Your task to perform on an android device: turn notification dots off Image 0: 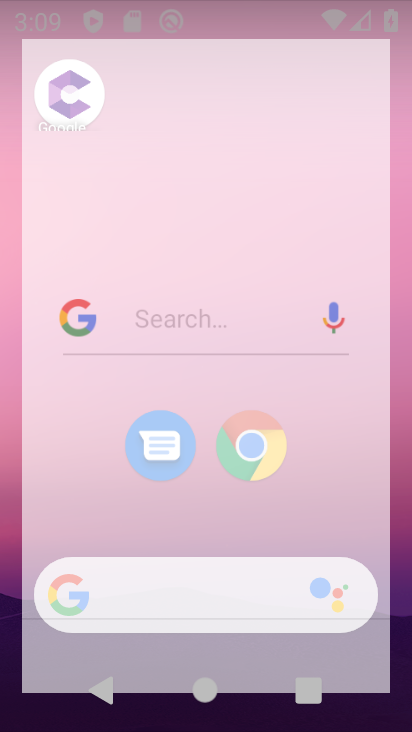
Step 0: drag from (329, 517) to (329, 62)
Your task to perform on an android device: turn notification dots off Image 1: 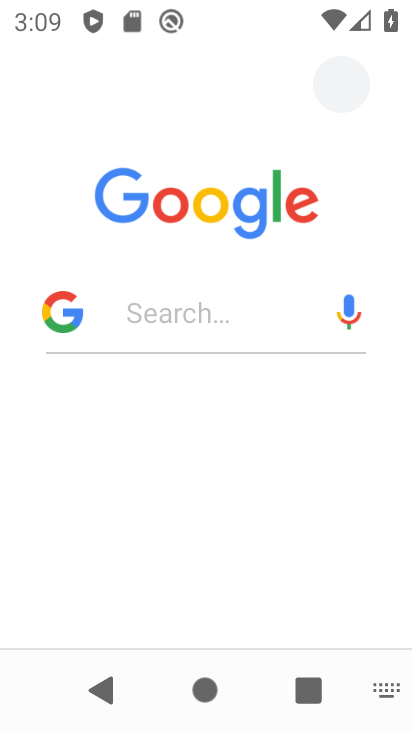
Step 1: press home button
Your task to perform on an android device: turn notification dots off Image 2: 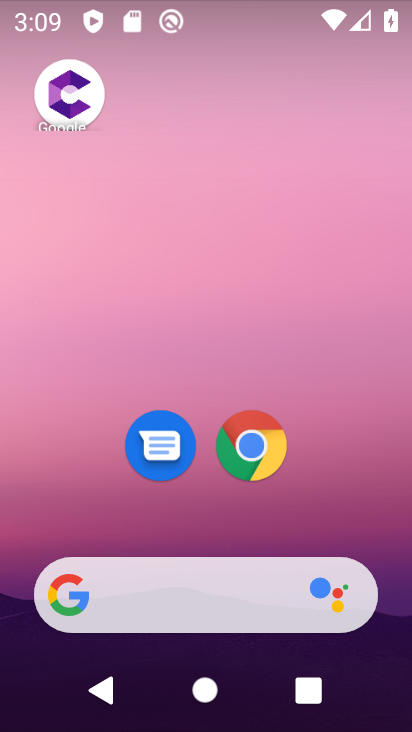
Step 2: drag from (336, 473) to (342, 47)
Your task to perform on an android device: turn notification dots off Image 3: 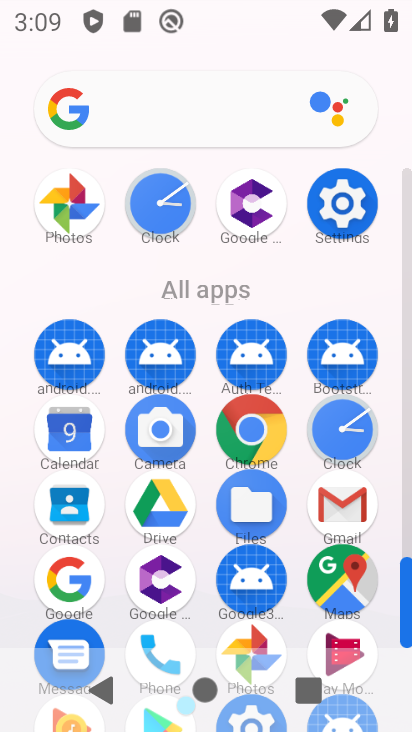
Step 3: click (352, 221)
Your task to perform on an android device: turn notification dots off Image 4: 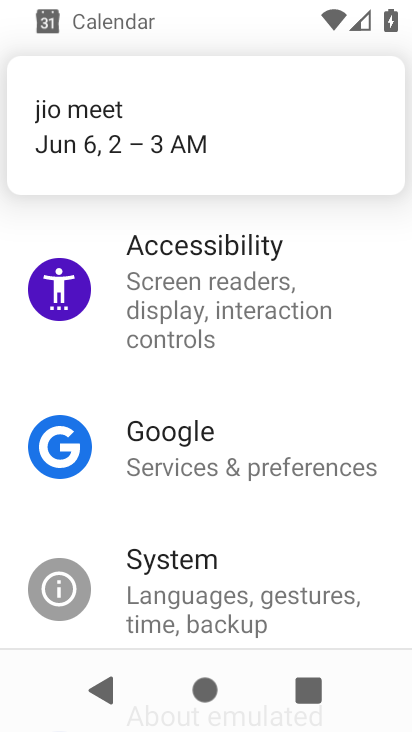
Step 4: drag from (279, 238) to (308, 642)
Your task to perform on an android device: turn notification dots off Image 5: 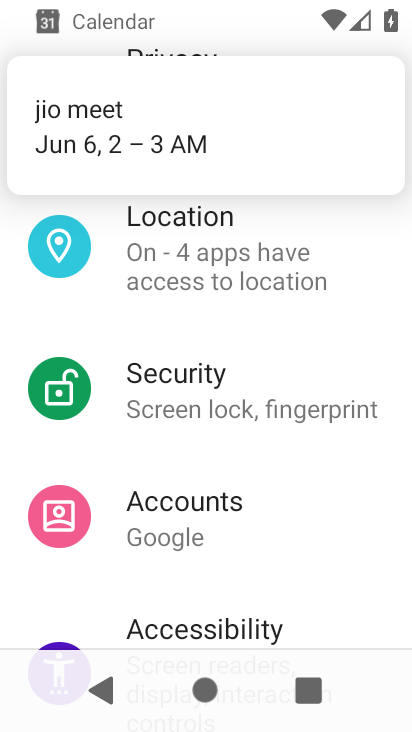
Step 5: drag from (170, 327) to (261, 567)
Your task to perform on an android device: turn notification dots off Image 6: 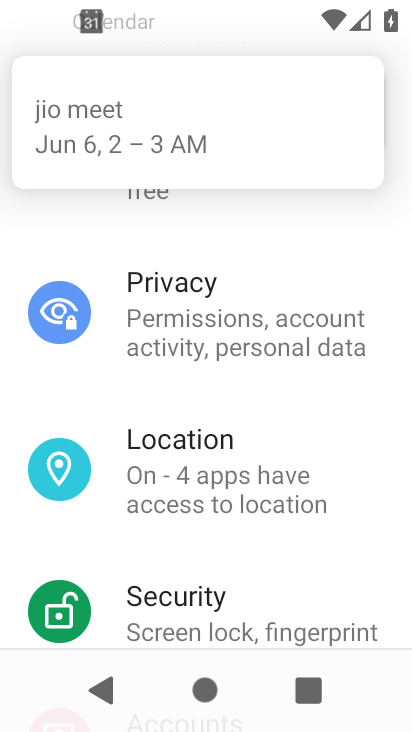
Step 6: drag from (230, 296) to (274, 521)
Your task to perform on an android device: turn notification dots off Image 7: 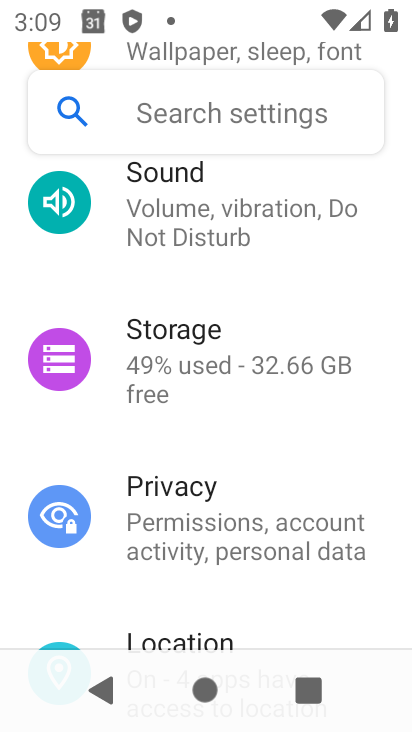
Step 7: drag from (259, 270) to (270, 556)
Your task to perform on an android device: turn notification dots off Image 8: 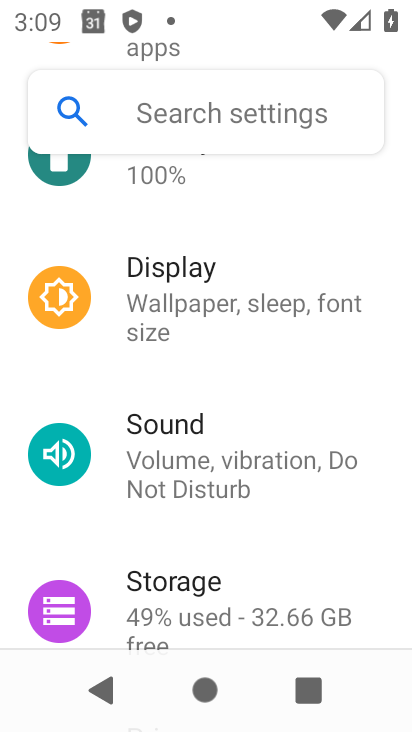
Step 8: drag from (201, 226) to (231, 635)
Your task to perform on an android device: turn notification dots off Image 9: 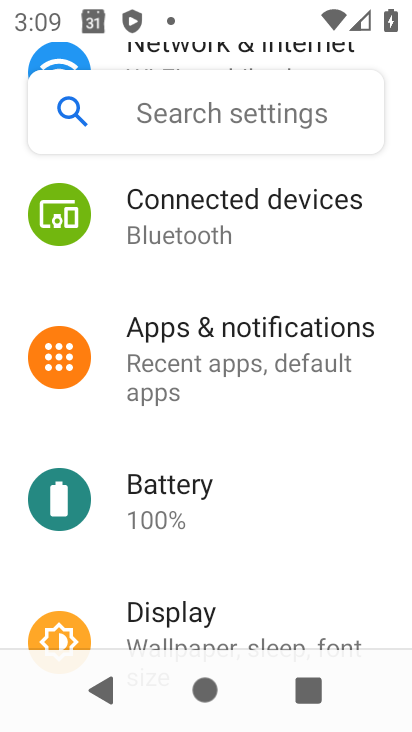
Step 9: click (204, 364)
Your task to perform on an android device: turn notification dots off Image 10: 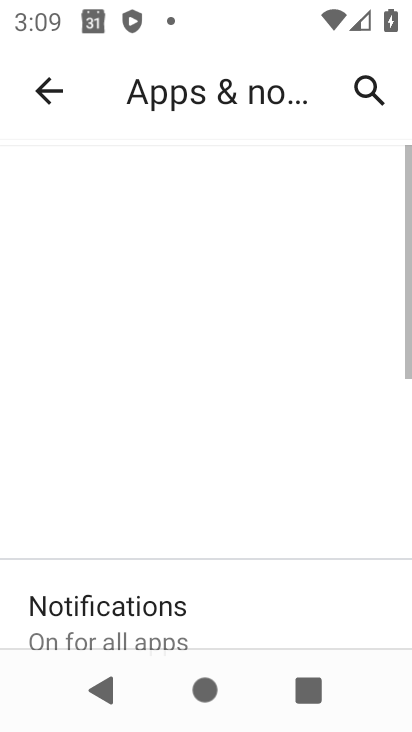
Step 10: drag from (194, 594) to (203, 302)
Your task to perform on an android device: turn notification dots off Image 11: 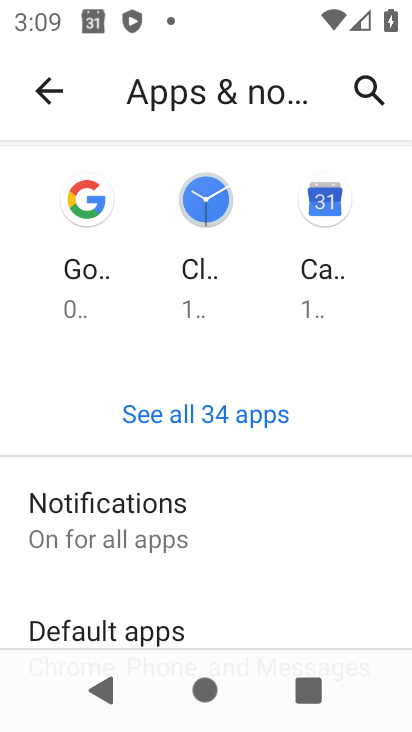
Step 11: click (163, 530)
Your task to perform on an android device: turn notification dots off Image 12: 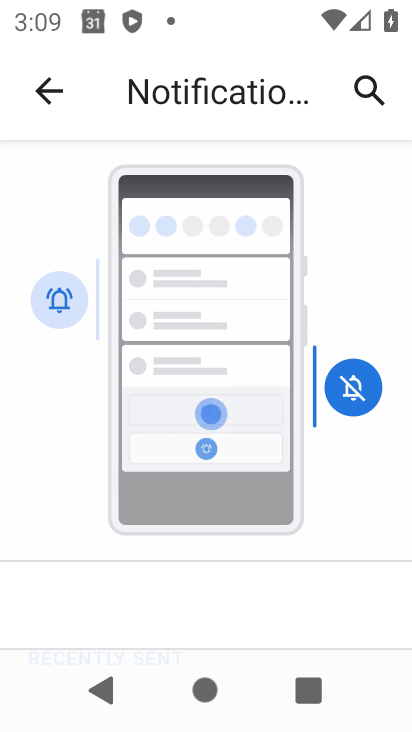
Step 12: drag from (247, 580) to (247, 289)
Your task to perform on an android device: turn notification dots off Image 13: 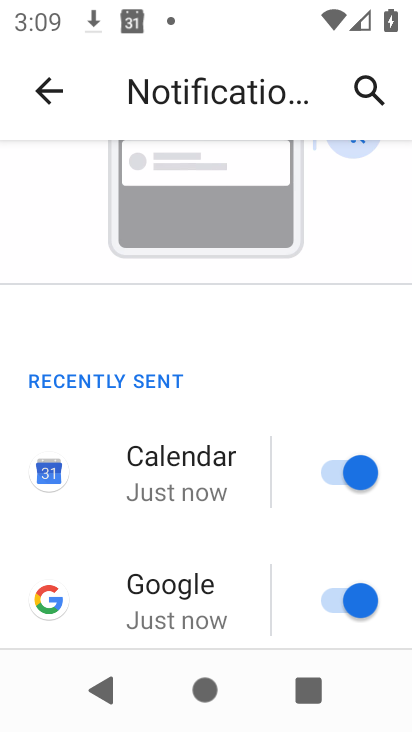
Step 13: drag from (254, 259) to (286, 214)
Your task to perform on an android device: turn notification dots off Image 14: 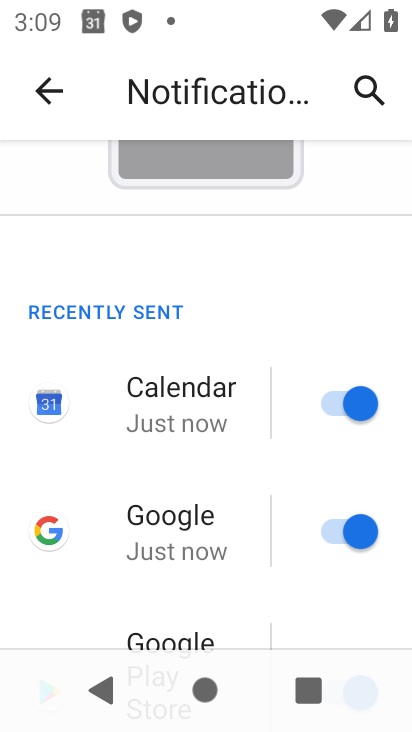
Step 14: drag from (292, 518) to (308, 129)
Your task to perform on an android device: turn notification dots off Image 15: 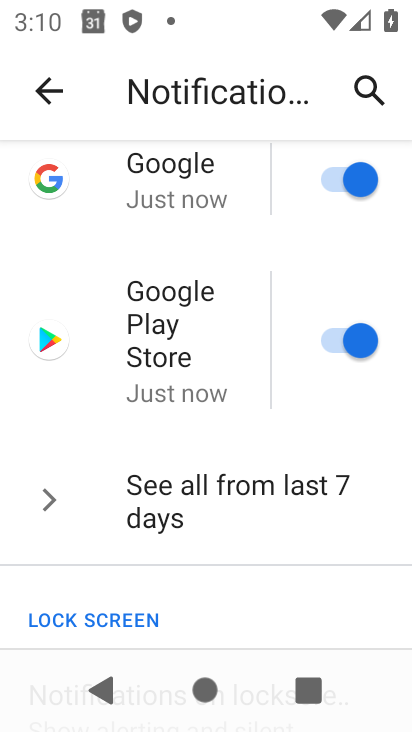
Step 15: drag from (274, 563) to (260, 278)
Your task to perform on an android device: turn notification dots off Image 16: 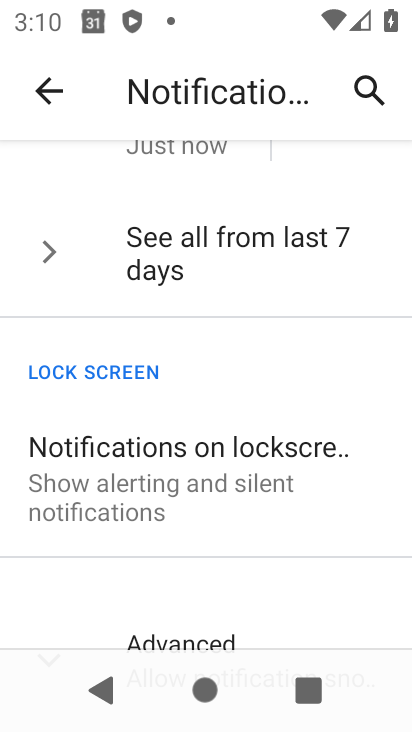
Step 16: drag from (215, 580) to (265, 122)
Your task to perform on an android device: turn notification dots off Image 17: 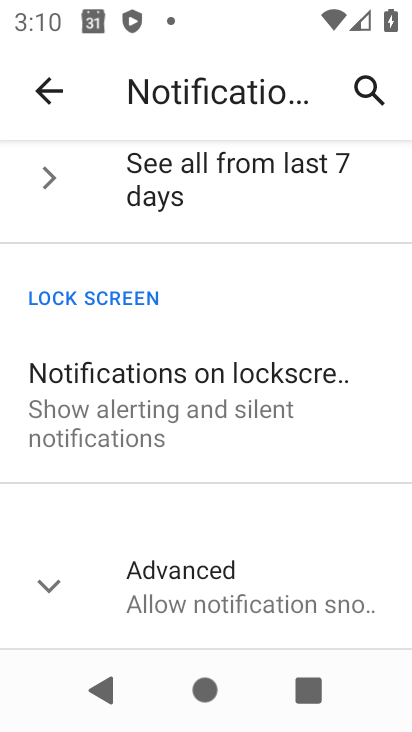
Step 17: click (247, 585)
Your task to perform on an android device: turn notification dots off Image 18: 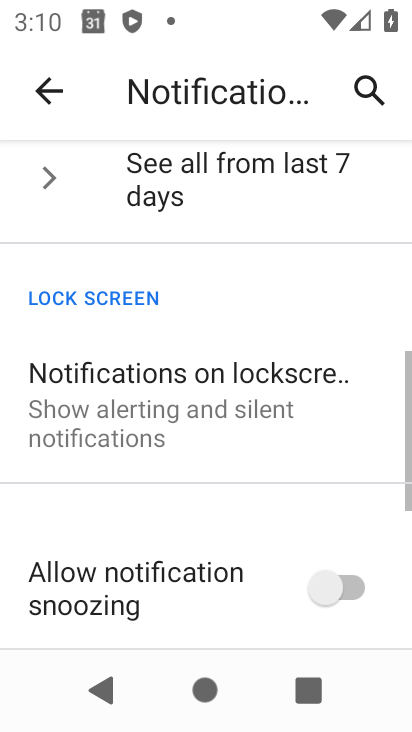
Step 18: drag from (247, 602) to (249, 309)
Your task to perform on an android device: turn notification dots off Image 19: 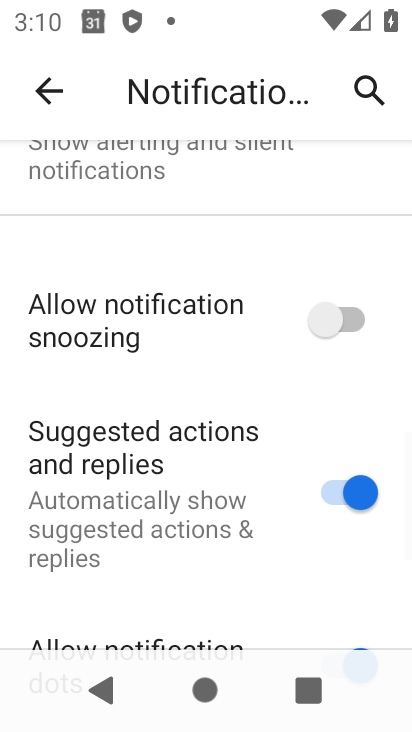
Step 19: drag from (258, 579) to (269, 328)
Your task to perform on an android device: turn notification dots off Image 20: 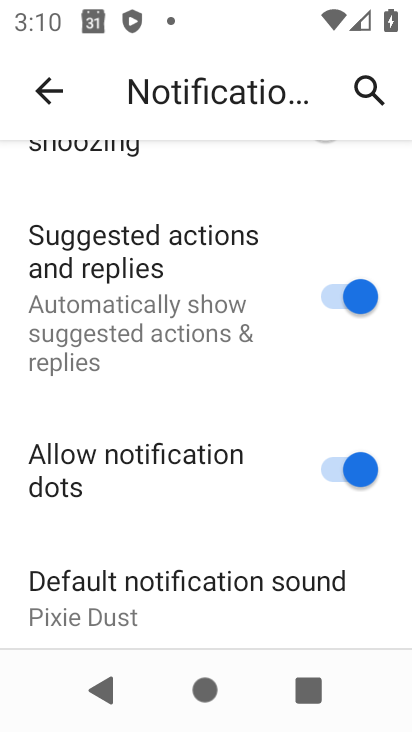
Step 20: drag from (238, 563) to (266, 350)
Your task to perform on an android device: turn notification dots off Image 21: 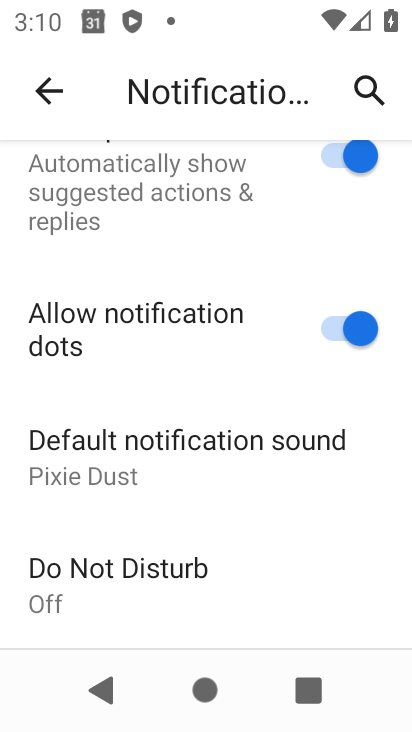
Step 21: click (273, 337)
Your task to perform on an android device: turn notification dots off Image 22: 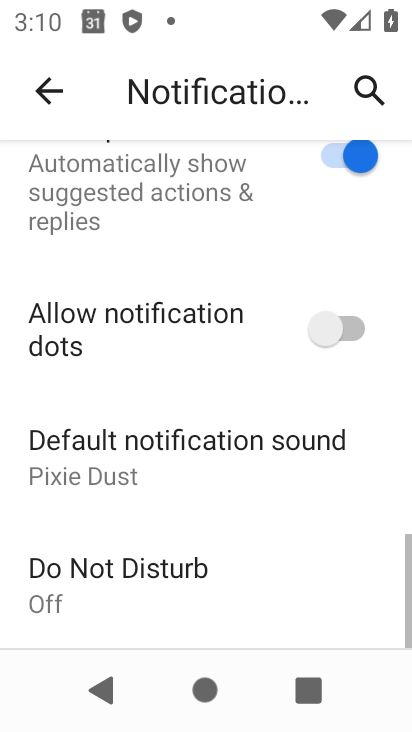
Step 22: task complete